Your task to perform on an android device: clear all cookies in the chrome app Image 0: 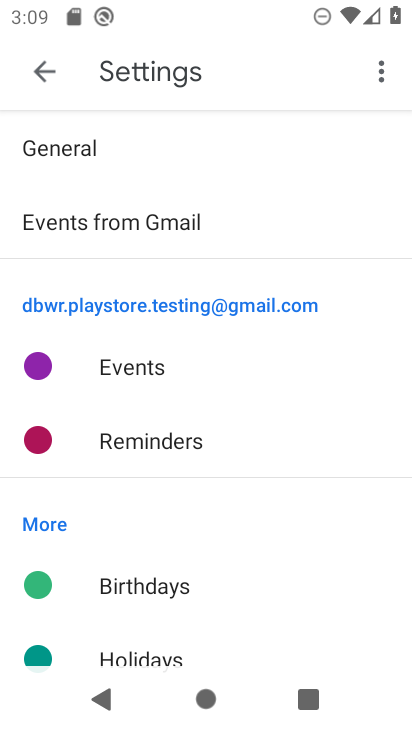
Step 0: press home button
Your task to perform on an android device: clear all cookies in the chrome app Image 1: 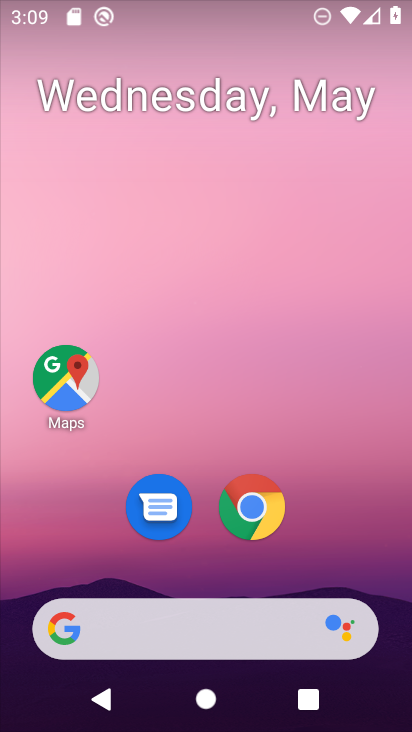
Step 1: click (238, 508)
Your task to perform on an android device: clear all cookies in the chrome app Image 2: 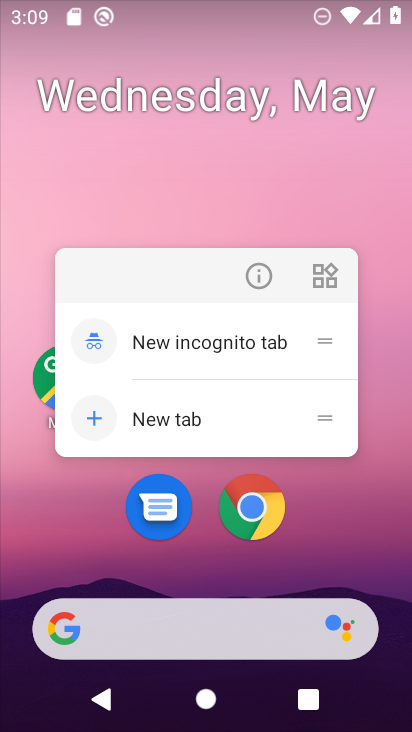
Step 2: click (239, 509)
Your task to perform on an android device: clear all cookies in the chrome app Image 3: 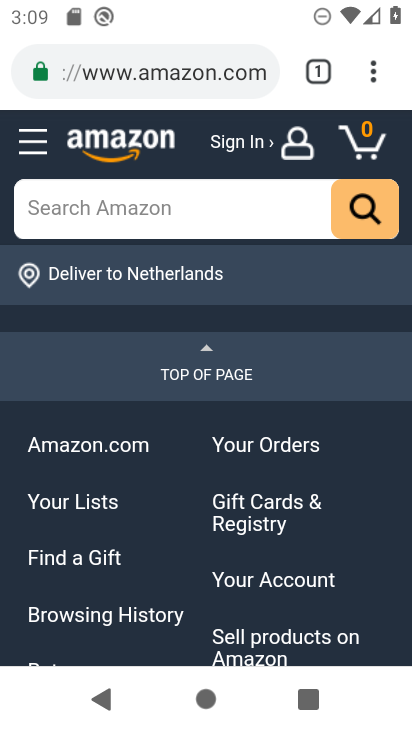
Step 3: click (376, 68)
Your task to perform on an android device: clear all cookies in the chrome app Image 4: 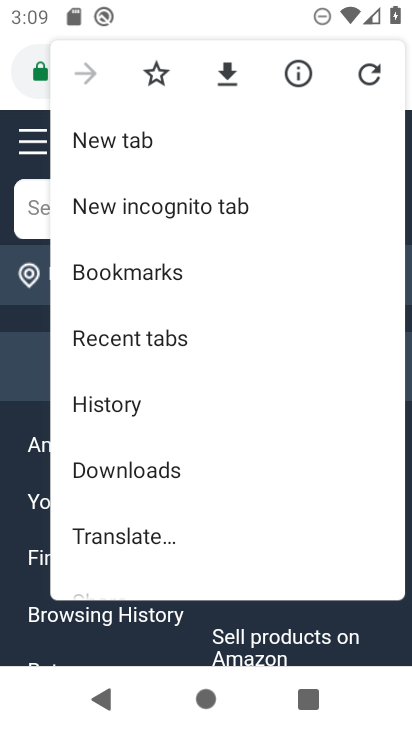
Step 4: click (160, 402)
Your task to perform on an android device: clear all cookies in the chrome app Image 5: 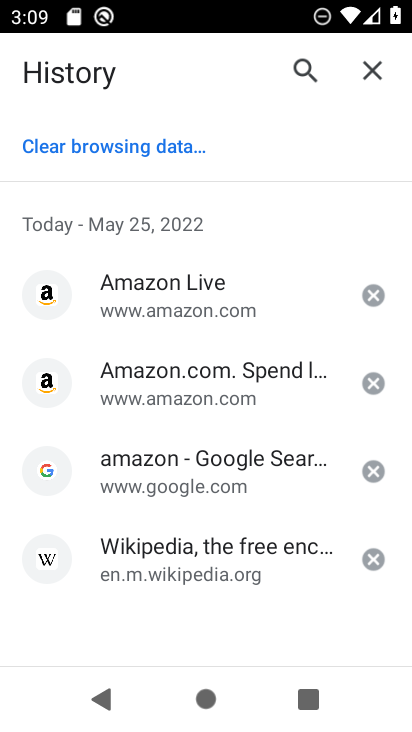
Step 5: click (113, 139)
Your task to perform on an android device: clear all cookies in the chrome app Image 6: 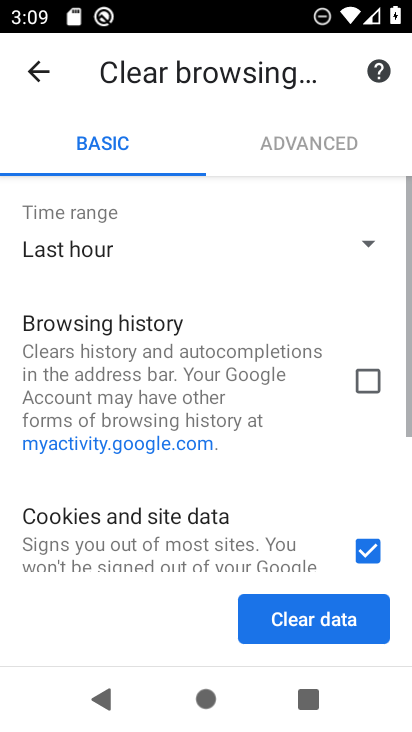
Step 6: drag from (310, 557) to (346, 222)
Your task to perform on an android device: clear all cookies in the chrome app Image 7: 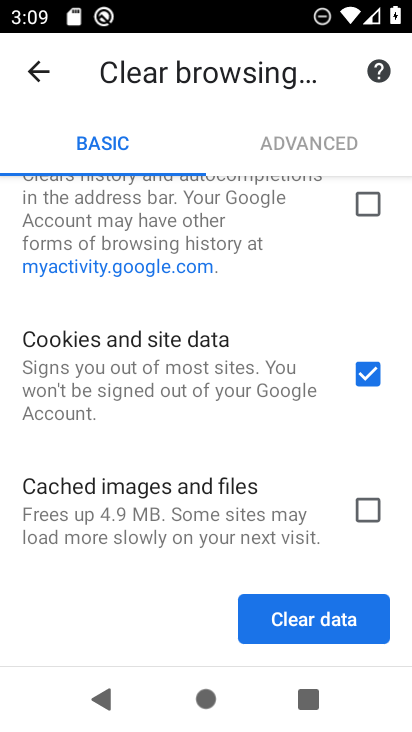
Step 7: click (360, 640)
Your task to perform on an android device: clear all cookies in the chrome app Image 8: 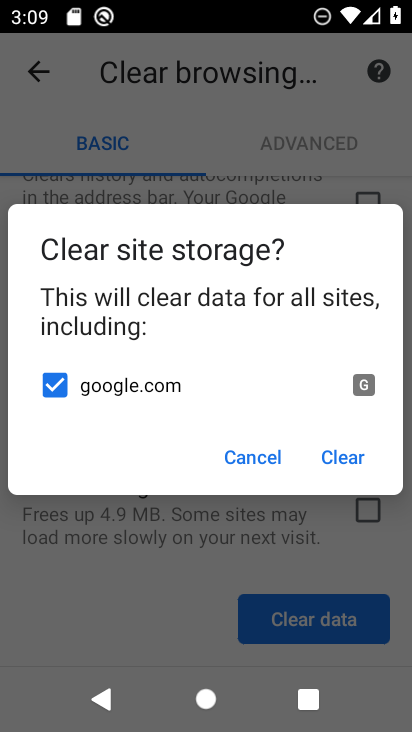
Step 8: click (346, 464)
Your task to perform on an android device: clear all cookies in the chrome app Image 9: 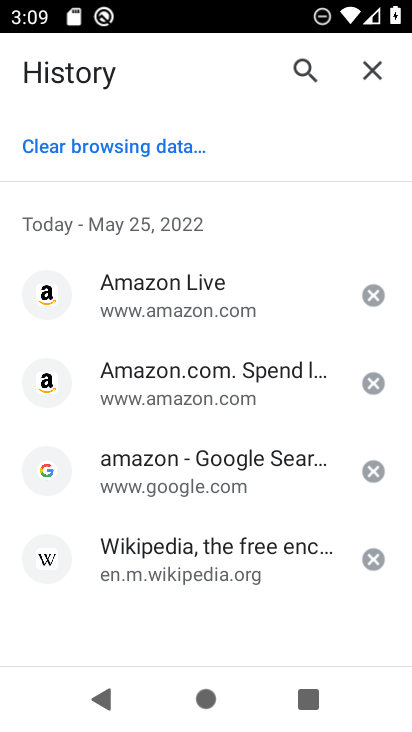
Step 9: task complete